Your task to perform on an android device: turn off javascript in the chrome app Image 0: 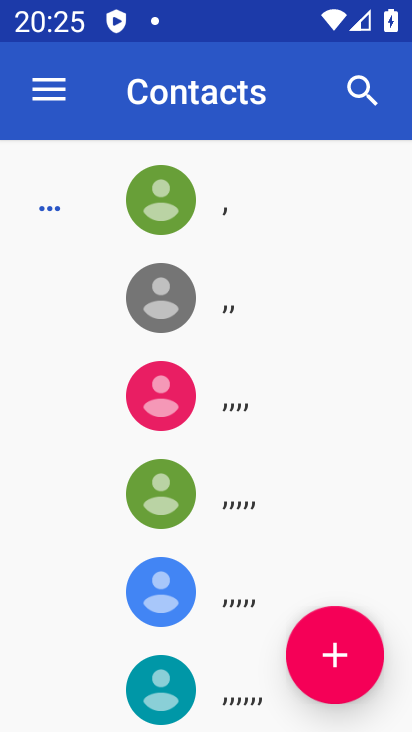
Step 0: press home button
Your task to perform on an android device: turn off javascript in the chrome app Image 1: 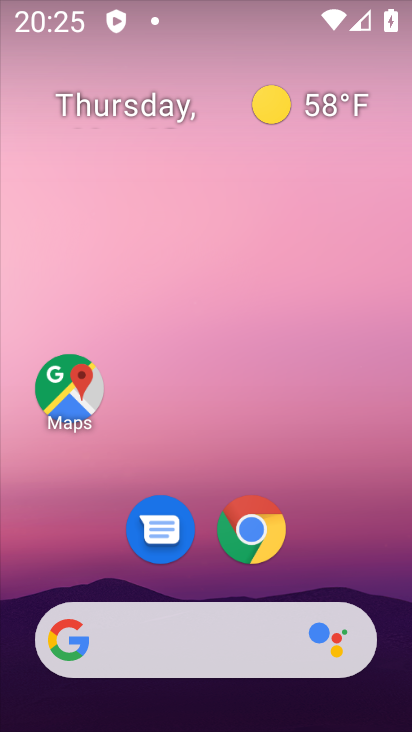
Step 1: click (244, 529)
Your task to perform on an android device: turn off javascript in the chrome app Image 2: 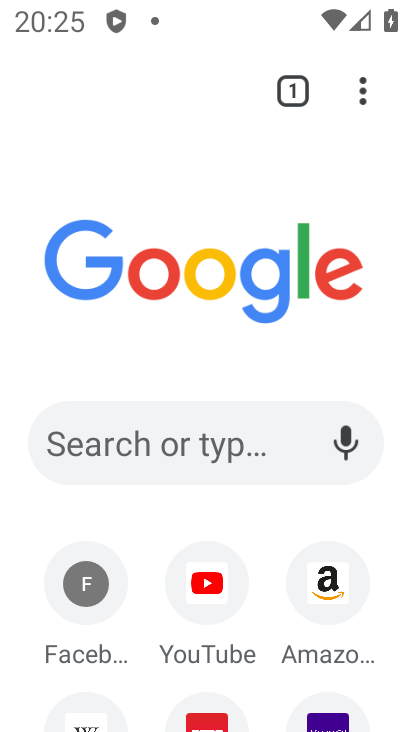
Step 2: click (355, 87)
Your task to perform on an android device: turn off javascript in the chrome app Image 3: 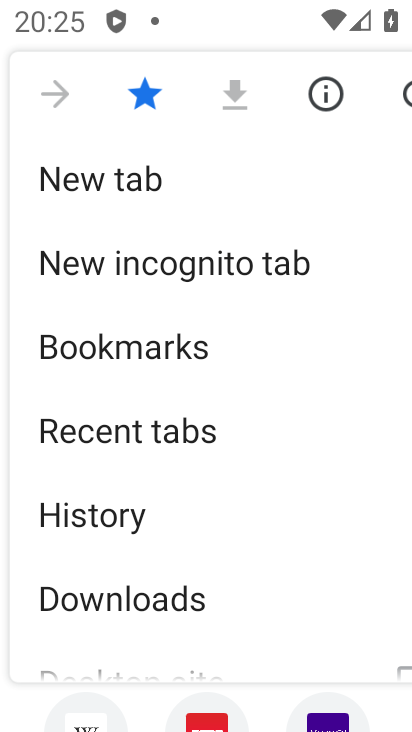
Step 3: drag from (179, 520) to (212, 45)
Your task to perform on an android device: turn off javascript in the chrome app Image 4: 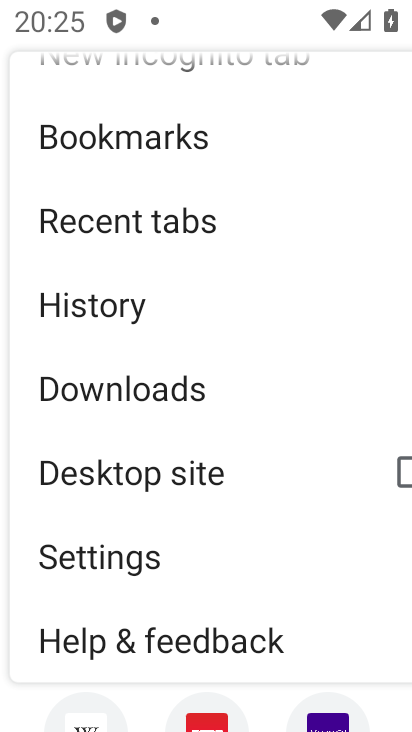
Step 4: click (123, 555)
Your task to perform on an android device: turn off javascript in the chrome app Image 5: 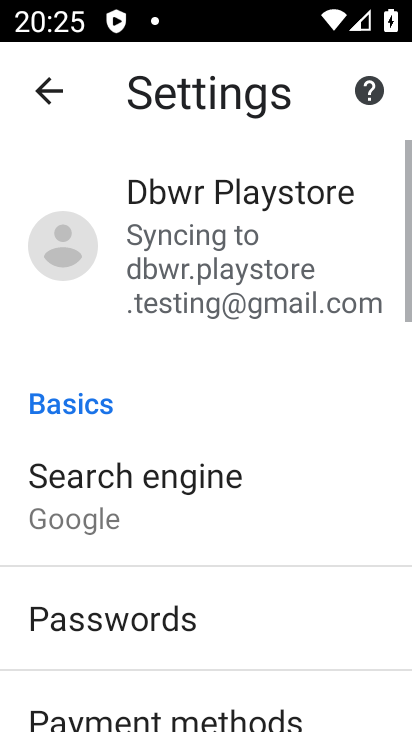
Step 5: drag from (199, 592) to (270, 44)
Your task to perform on an android device: turn off javascript in the chrome app Image 6: 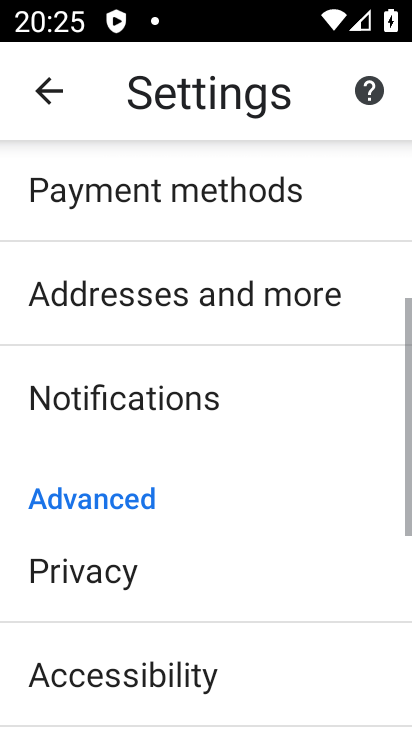
Step 6: drag from (249, 625) to (231, 49)
Your task to perform on an android device: turn off javascript in the chrome app Image 7: 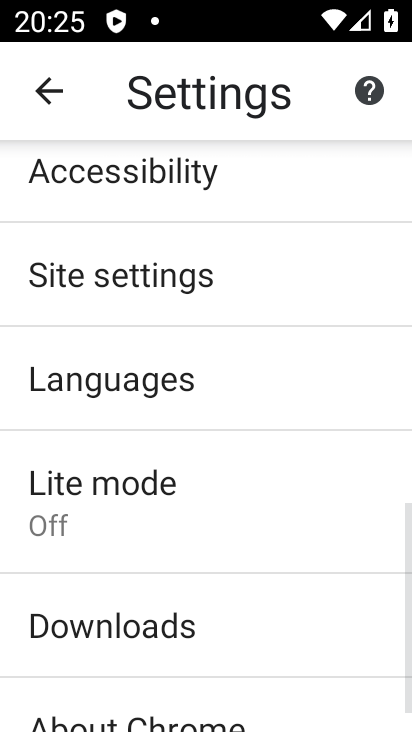
Step 7: click (105, 236)
Your task to perform on an android device: turn off javascript in the chrome app Image 8: 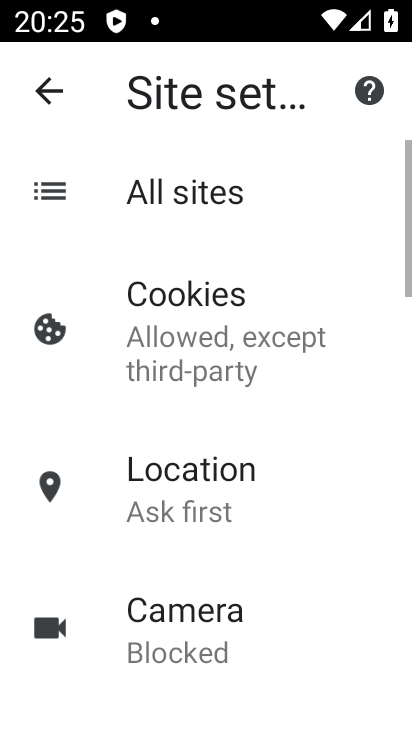
Step 8: drag from (222, 607) to (203, 90)
Your task to perform on an android device: turn off javascript in the chrome app Image 9: 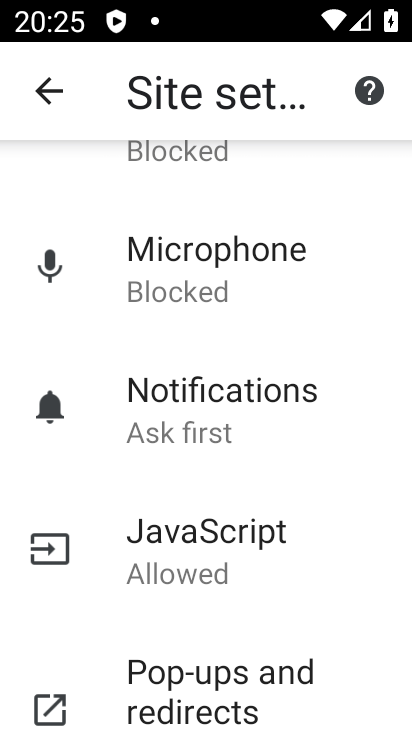
Step 9: click (155, 538)
Your task to perform on an android device: turn off javascript in the chrome app Image 10: 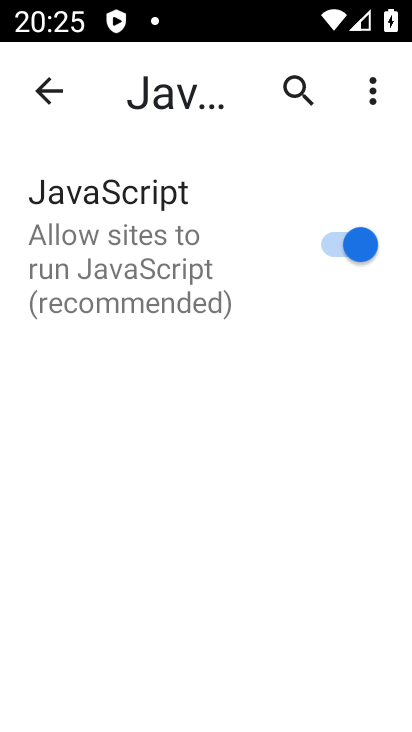
Step 10: click (354, 239)
Your task to perform on an android device: turn off javascript in the chrome app Image 11: 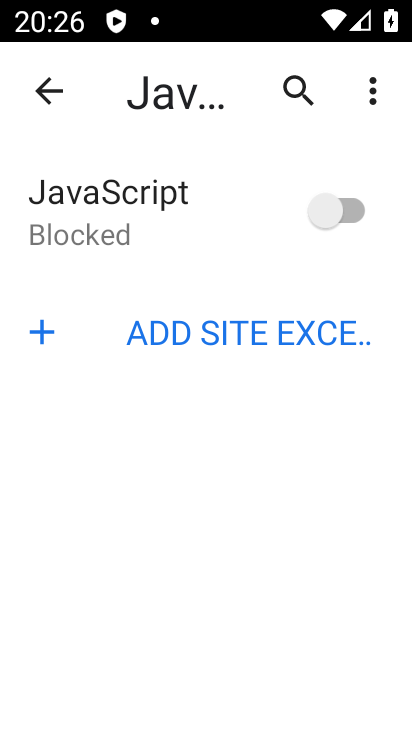
Step 11: task complete